Your task to perform on an android device: What is the news today? Image 0: 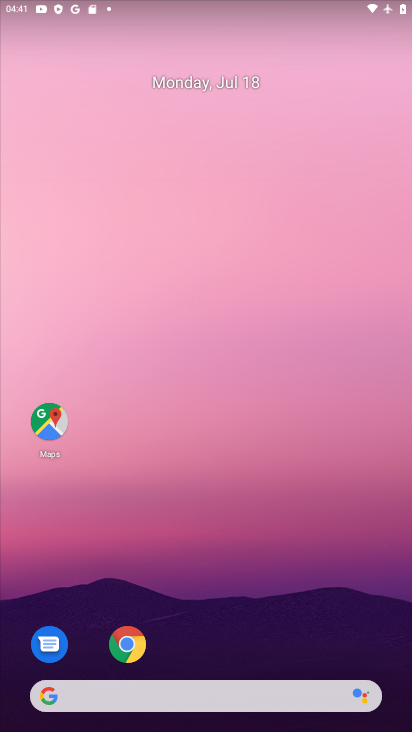
Step 0: press home button
Your task to perform on an android device: What is the news today? Image 1: 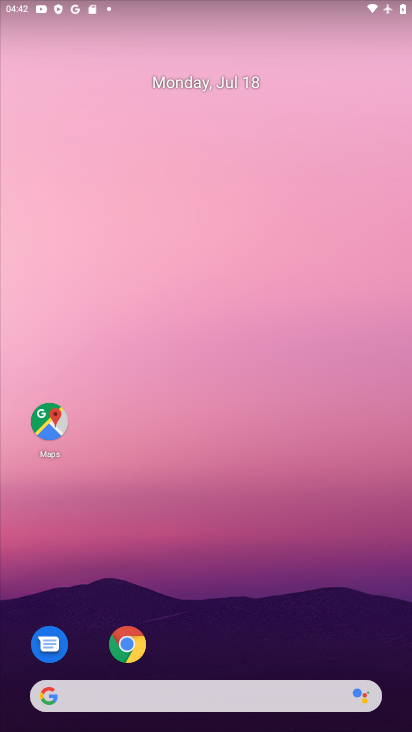
Step 1: click (57, 698)
Your task to perform on an android device: What is the news today? Image 2: 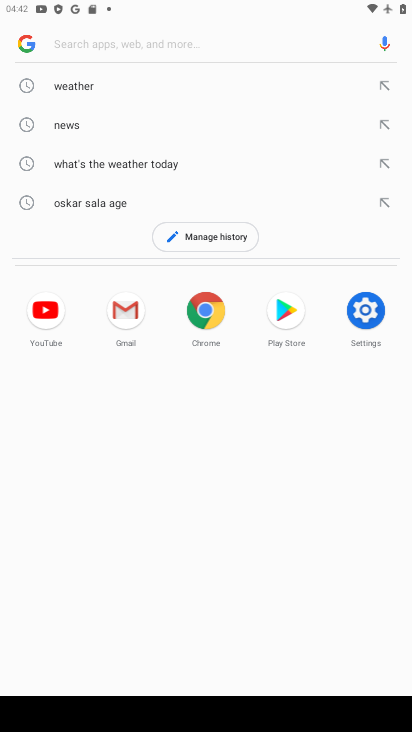
Step 2: type "news today?"
Your task to perform on an android device: What is the news today? Image 3: 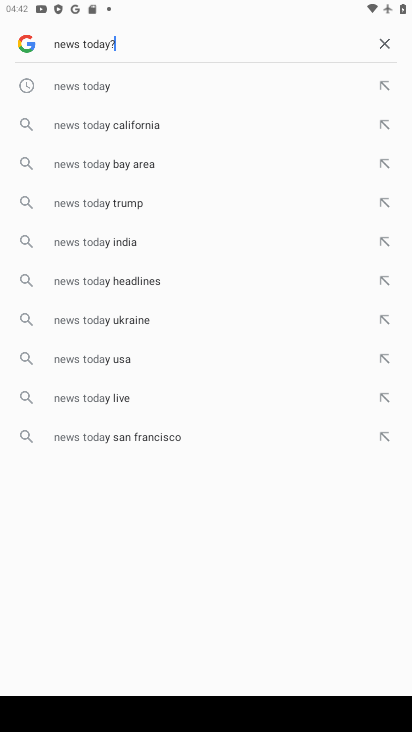
Step 3: press enter
Your task to perform on an android device: What is the news today? Image 4: 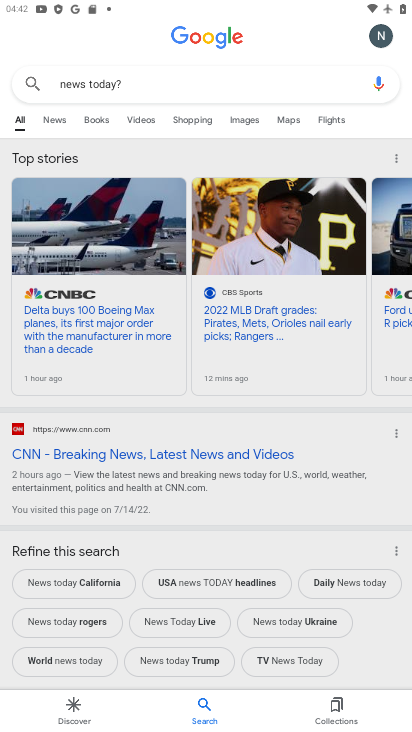
Step 4: task complete